Your task to perform on an android device: see creations saved in the google photos Image 0: 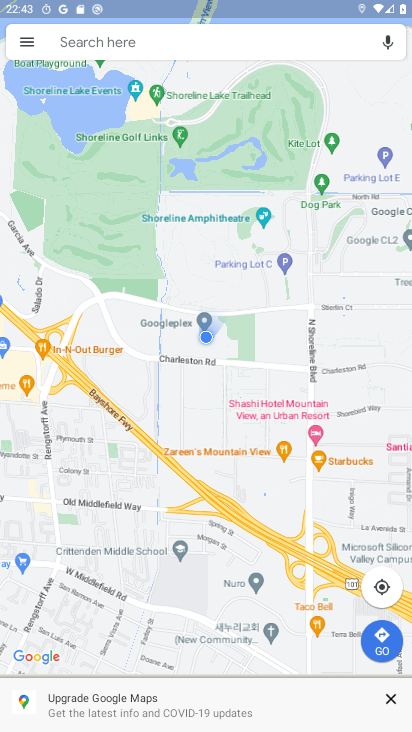
Step 0: press home button
Your task to perform on an android device: see creations saved in the google photos Image 1: 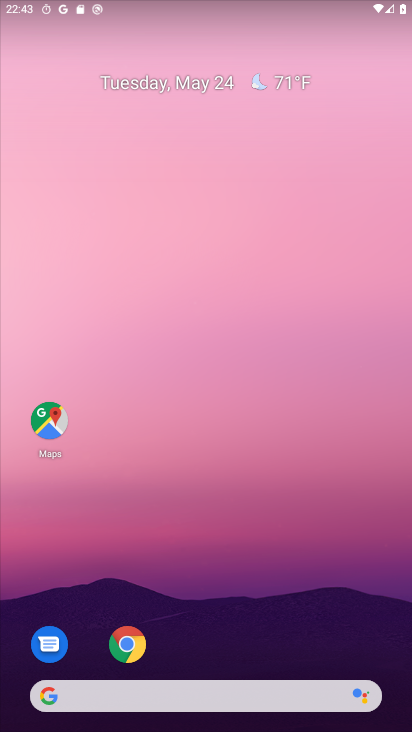
Step 1: drag from (217, 572) to (217, 36)
Your task to perform on an android device: see creations saved in the google photos Image 2: 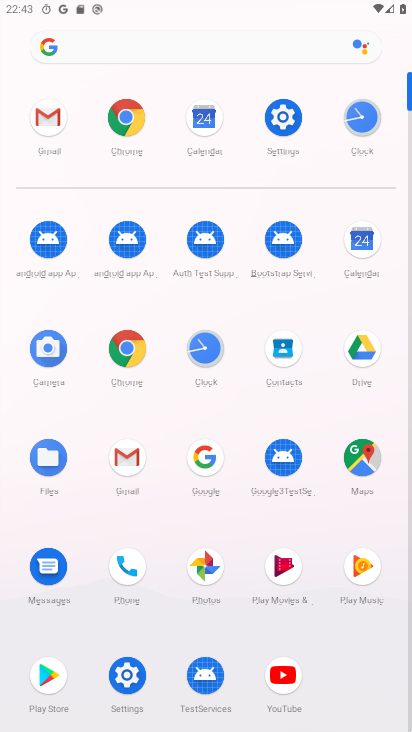
Step 2: click (204, 562)
Your task to perform on an android device: see creations saved in the google photos Image 3: 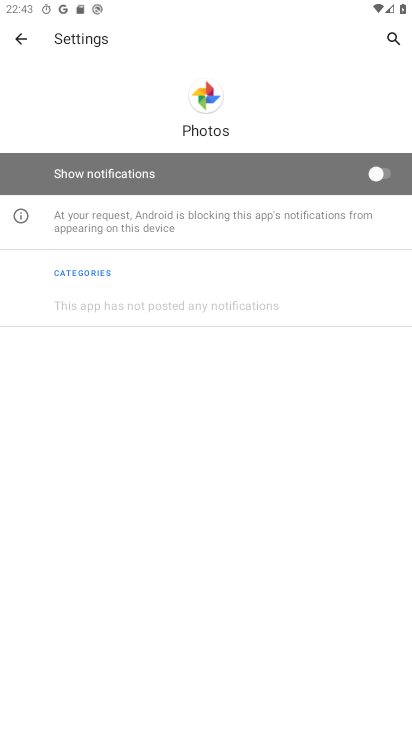
Step 3: click (17, 42)
Your task to perform on an android device: see creations saved in the google photos Image 4: 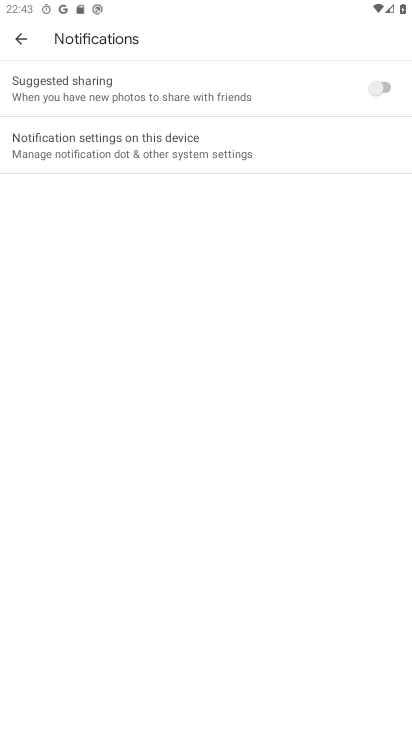
Step 4: click (16, 37)
Your task to perform on an android device: see creations saved in the google photos Image 5: 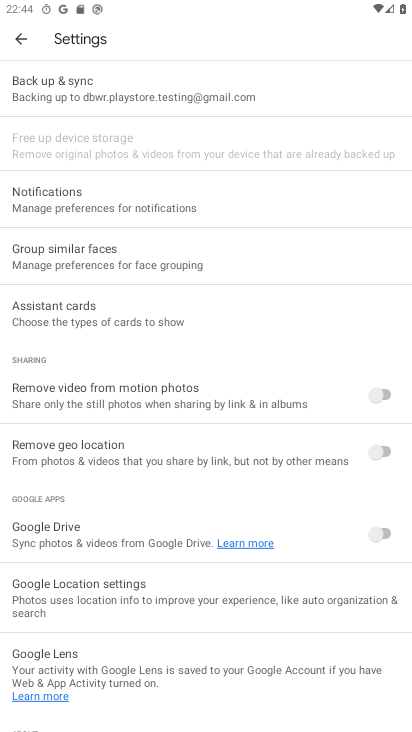
Step 5: click (17, 39)
Your task to perform on an android device: see creations saved in the google photos Image 6: 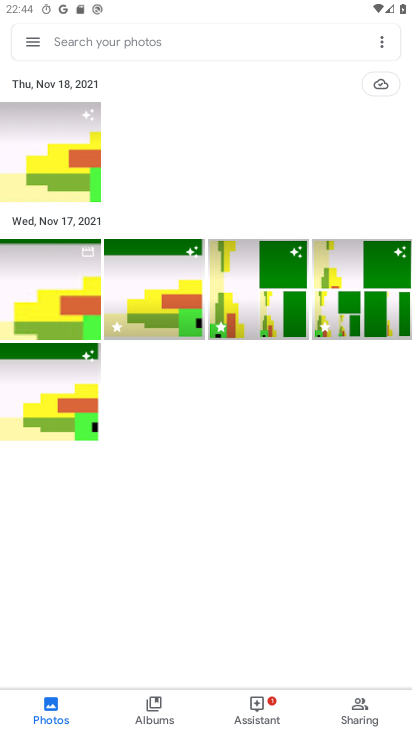
Step 6: click (112, 36)
Your task to perform on an android device: see creations saved in the google photos Image 7: 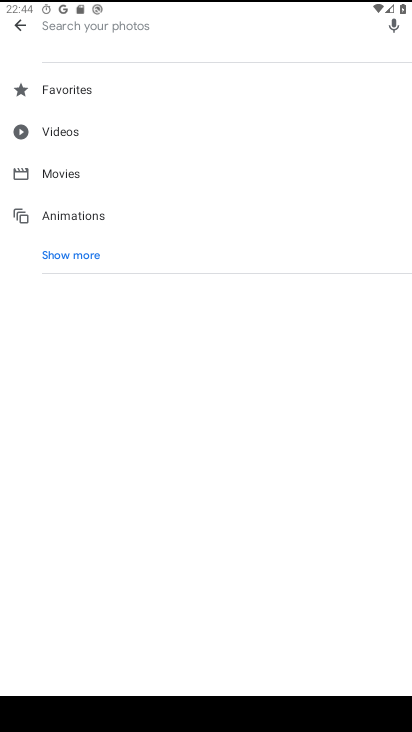
Step 7: click (82, 246)
Your task to perform on an android device: see creations saved in the google photos Image 8: 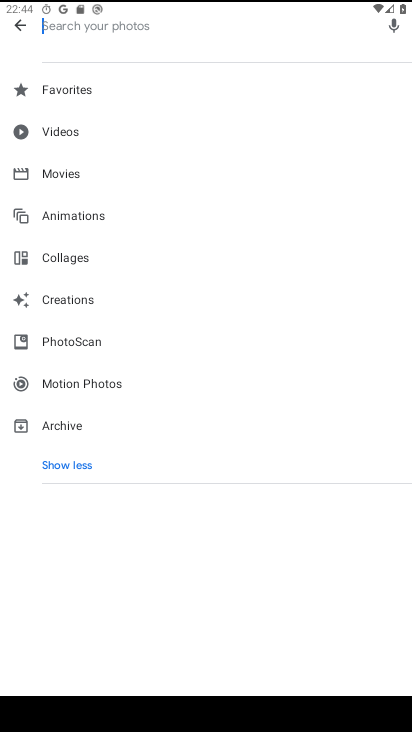
Step 8: click (53, 295)
Your task to perform on an android device: see creations saved in the google photos Image 9: 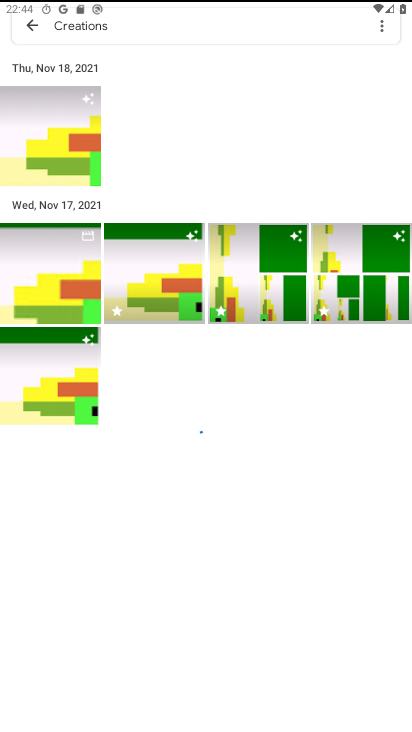
Step 9: task complete